Your task to perform on an android device: add a label to a message in the gmail app Image 0: 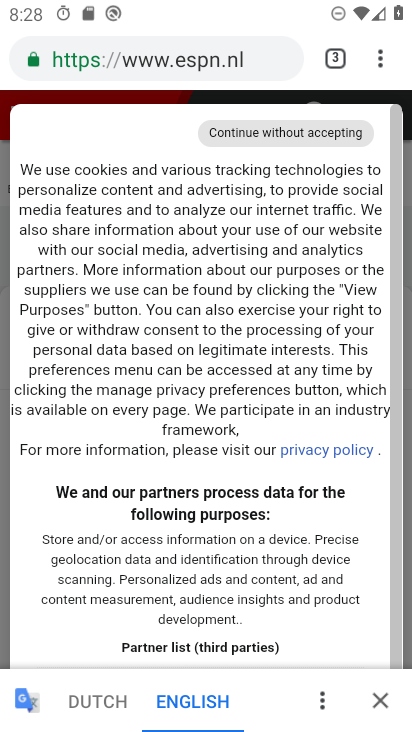
Step 0: press home button
Your task to perform on an android device: add a label to a message in the gmail app Image 1: 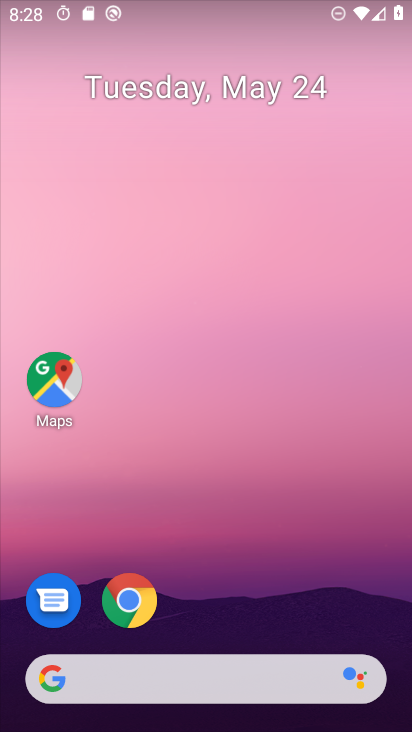
Step 1: drag from (212, 538) to (237, 66)
Your task to perform on an android device: add a label to a message in the gmail app Image 2: 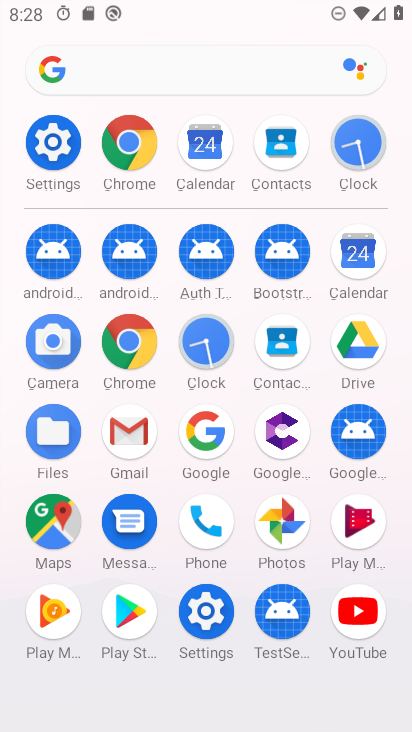
Step 2: click (131, 438)
Your task to perform on an android device: add a label to a message in the gmail app Image 3: 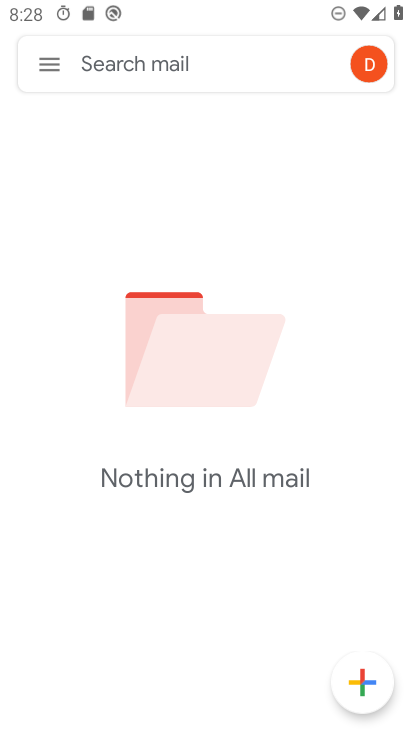
Step 3: task complete